Your task to perform on an android device: turn pop-ups off in chrome Image 0: 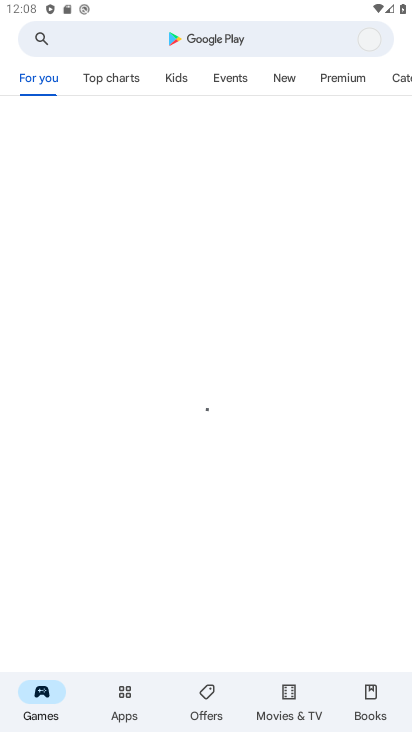
Step 0: press home button
Your task to perform on an android device: turn pop-ups off in chrome Image 1: 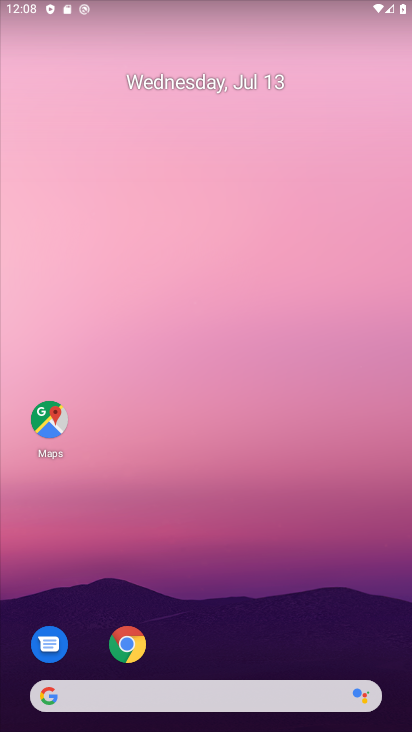
Step 1: drag from (344, 606) to (273, 155)
Your task to perform on an android device: turn pop-ups off in chrome Image 2: 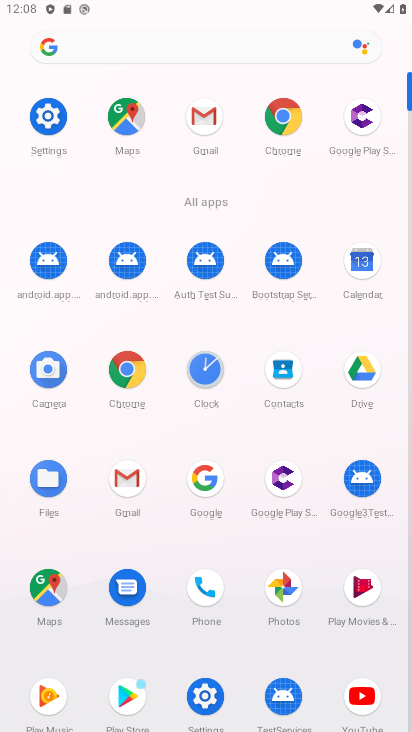
Step 2: click (129, 367)
Your task to perform on an android device: turn pop-ups off in chrome Image 3: 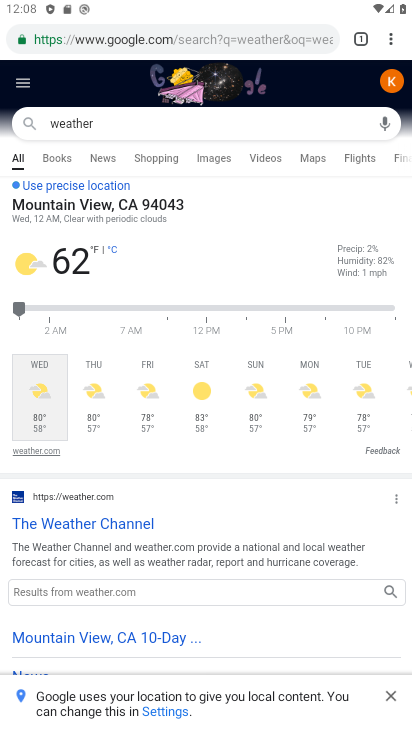
Step 3: drag from (394, 37) to (257, 436)
Your task to perform on an android device: turn pop-ups off in chrome Image 4: 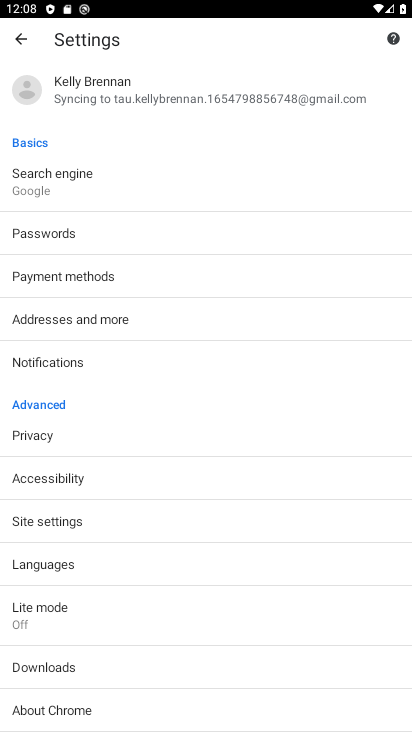
Step 4: click (78, 529)
Your task to perform on an android device: turn pop-ups off in chrome Image 5: 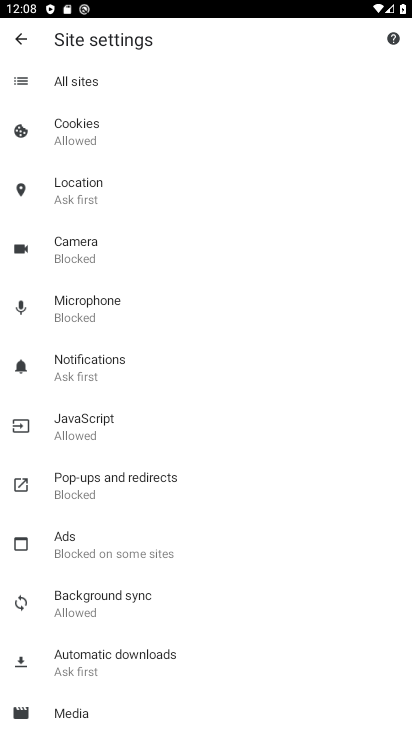
Step 5: click (98, 486)
Your task to perform on an android device: turn pop-ups off in chrome Image 6: 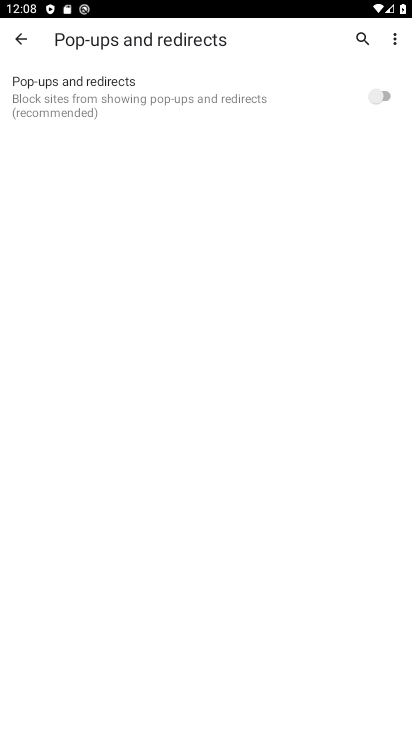
Step 6: task complete